Your task to perform on an android device: uninstall "Truecaller" Image 0: 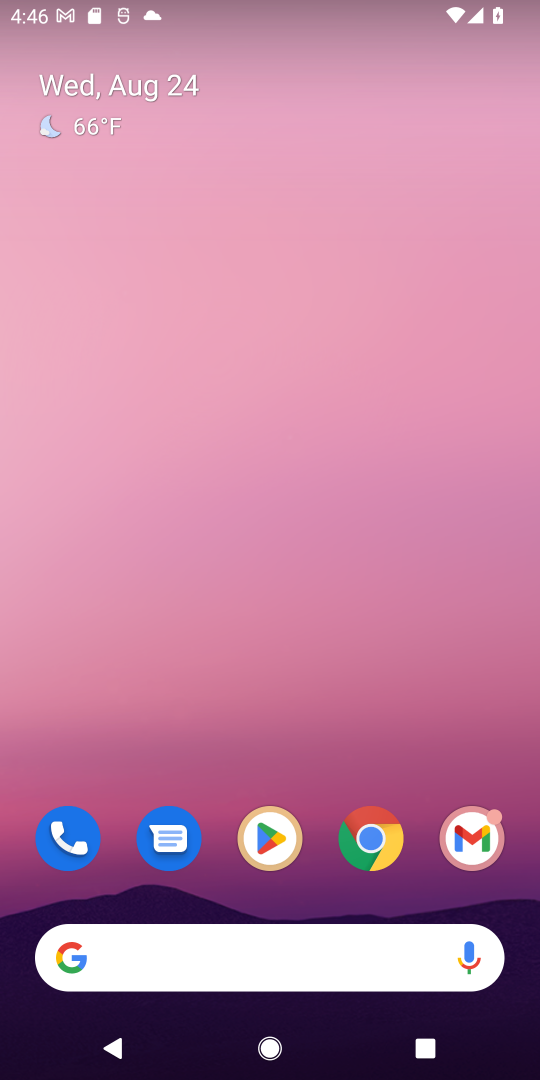
Step 0: press home button
Your task to perform on an android device: uninstall "Truecaller" Image 1: 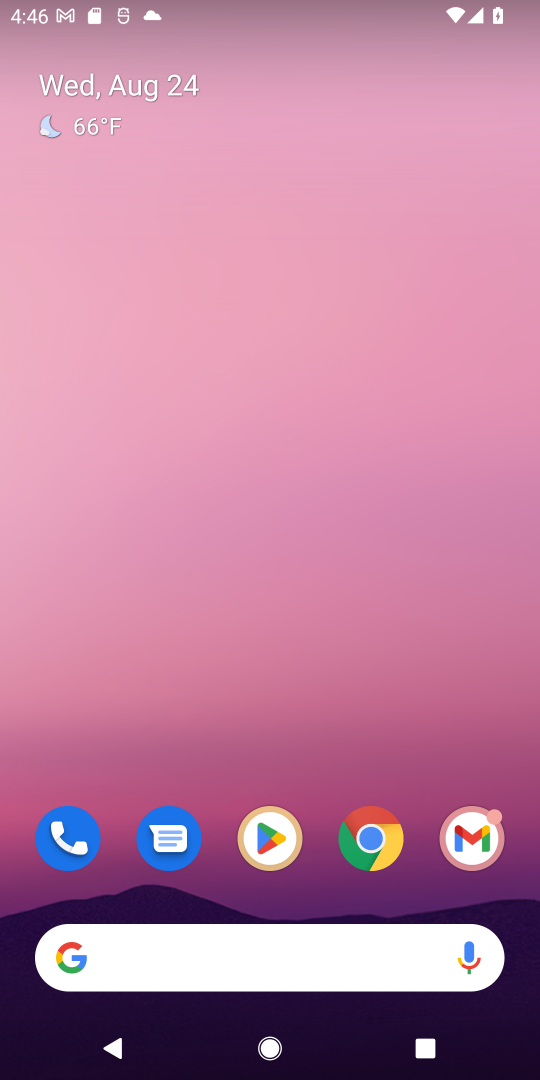
Step 1: click (270, 834)
Your task to perform on an android device: uninstall "Truecaller" Image 2: 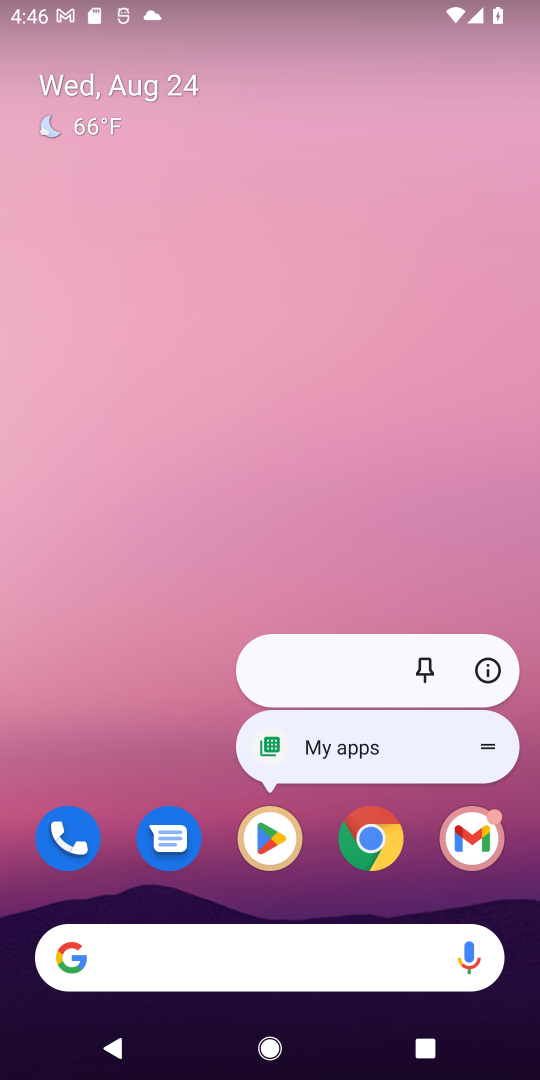
Step 2: click (270, 834)
Your task to perform on an android device: uninstall "Truecaller" Image 3: 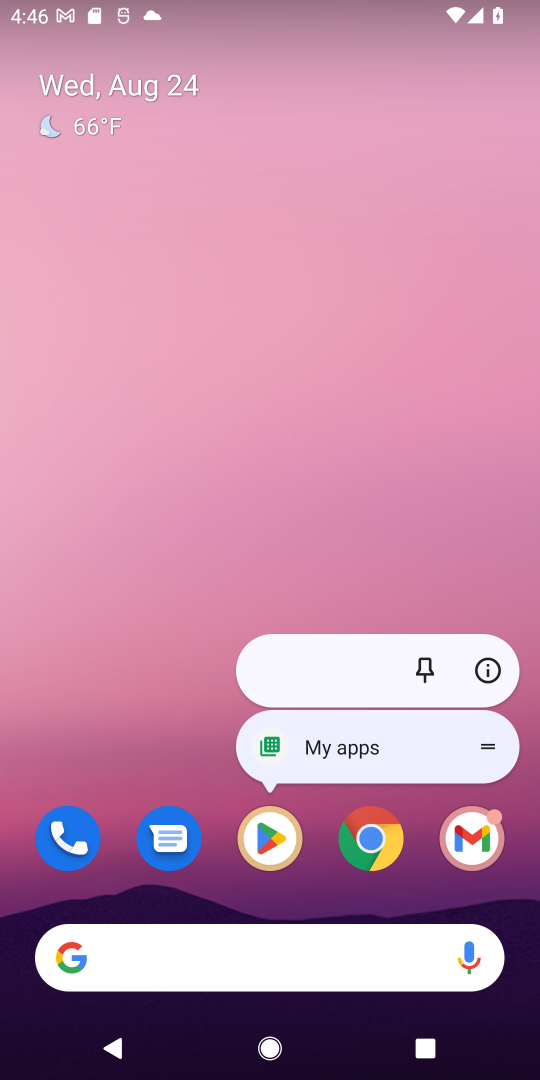
Step 3: click (273, 836)
Your task to perform on an android device: uninstall "Truecaller" Image 4: 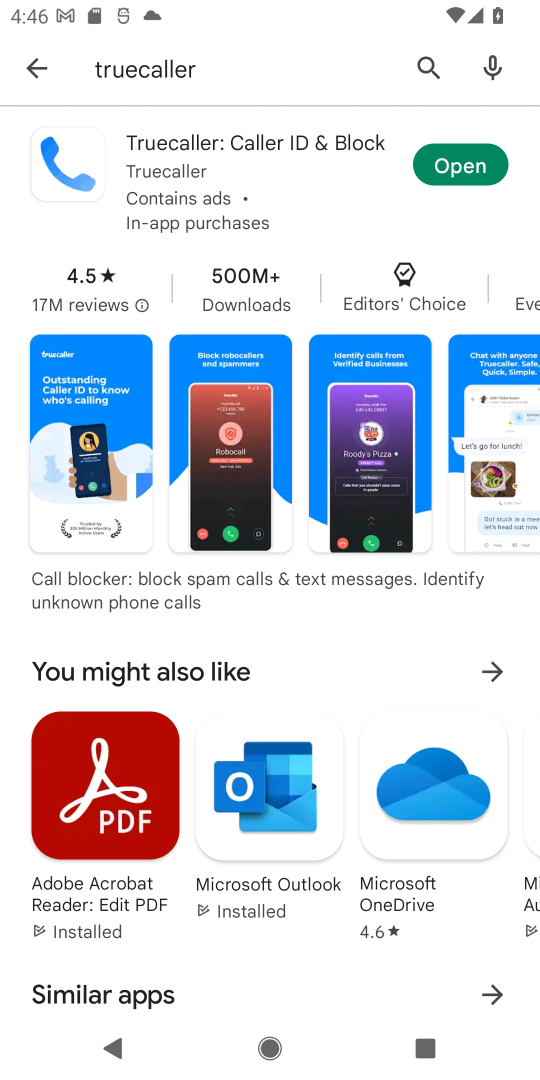
Step 4: click (204, 154)
Your task to perform on an android device: uninstall "Truecaller" Image 5: 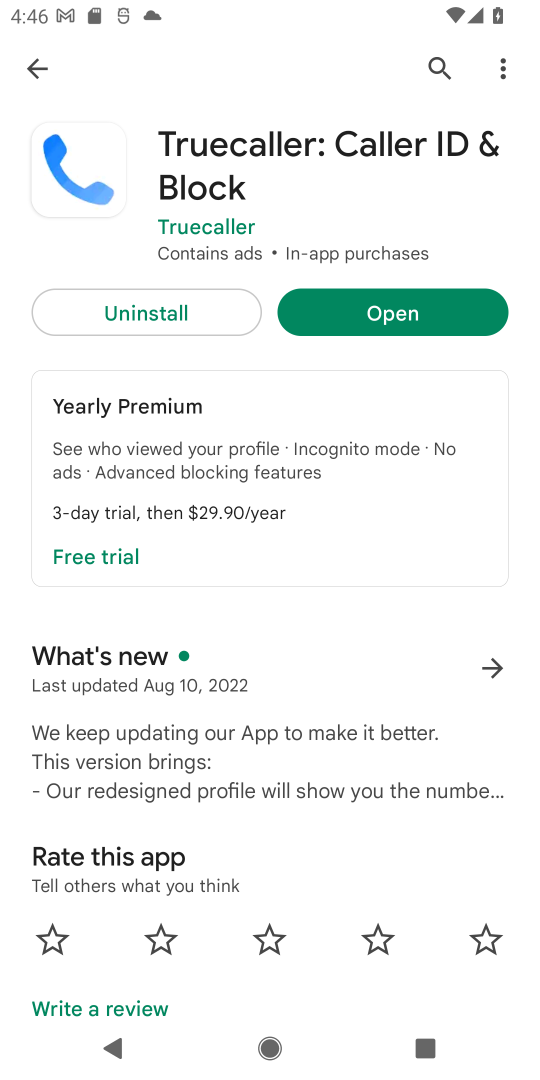
Step 5: click (168, 310)
Your task to perform on an android device: uninstall "Truecaller" Image 6: 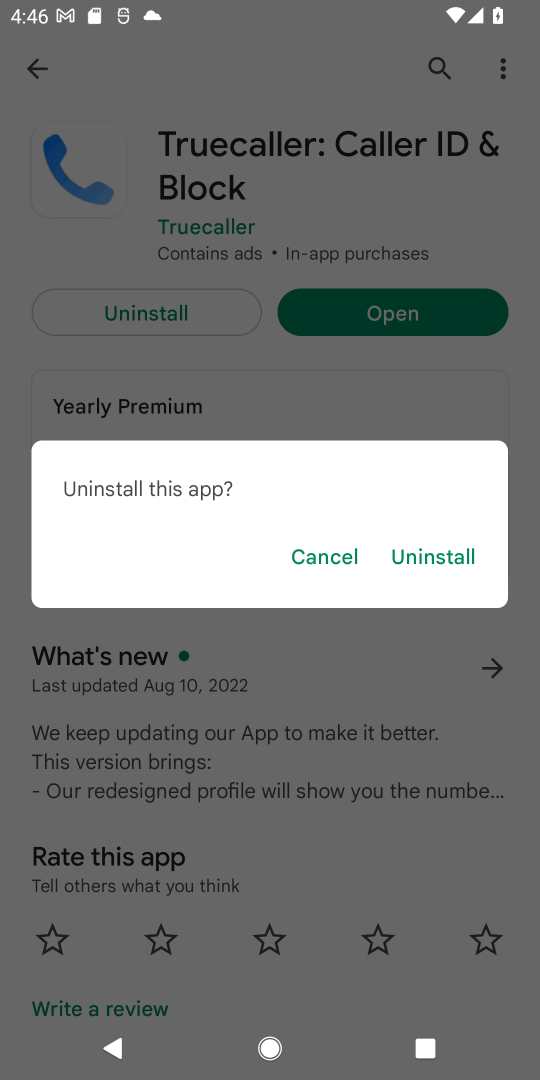
Step 6: click (419, 571)
Your task to perform on an android device: uninstall "Truecaller" Image 7: 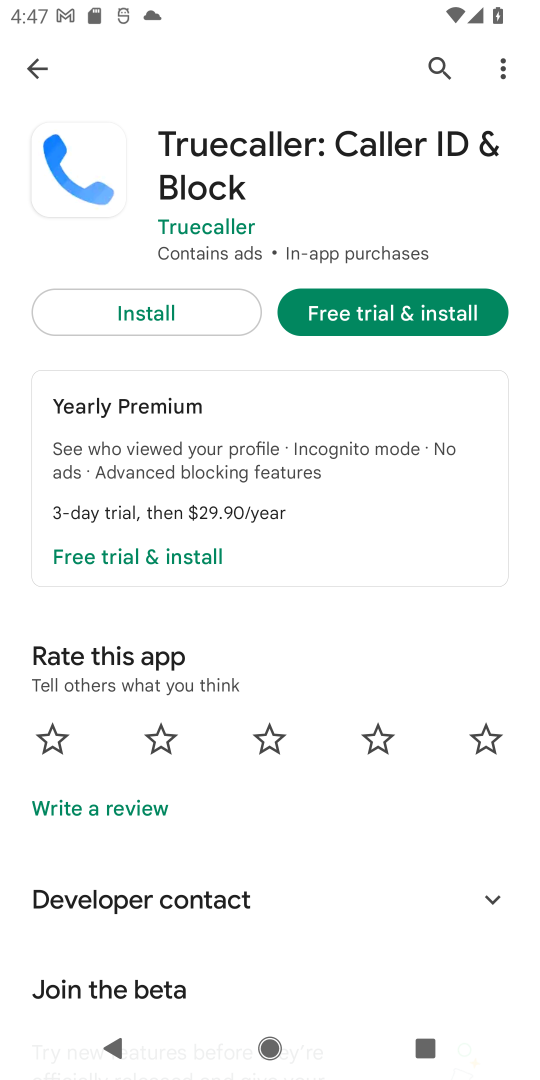
Step 7: task complete